Your task to perform on an android device: turn smart compose on in the gmail app Image 0: 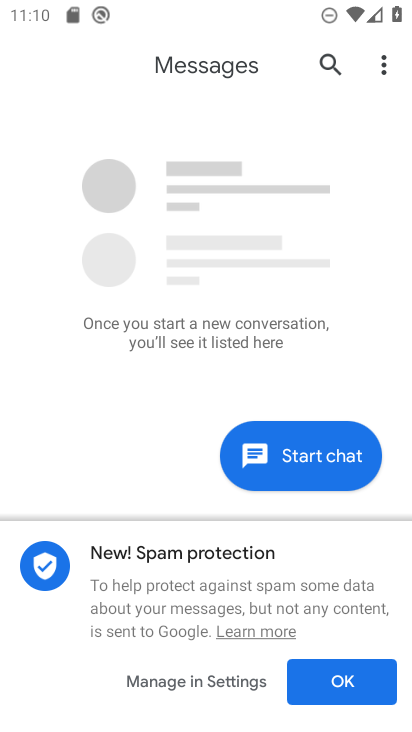
Step 0: task complete